Your task to perform on an android device: turn pop-ups off in chrome Image 0: 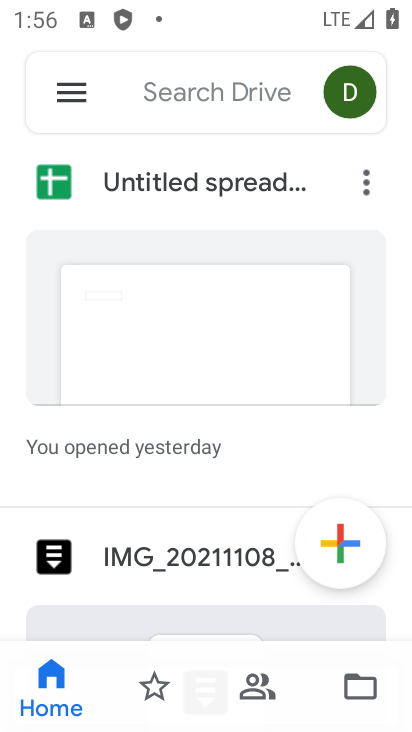
Step 0: press home button
Your task to perform on an android device: turn pop-ups off in chrome Image 1: 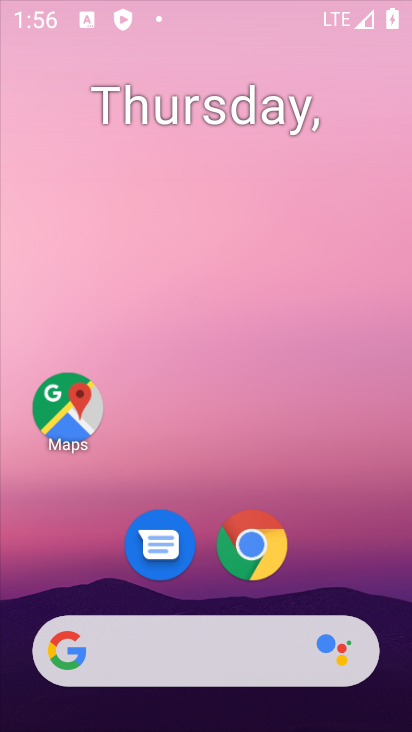
Step 1: drag from (323, 557) to (319, 0)
Your task to perform on an android device: turn pop-ups off in chrome Image 2: 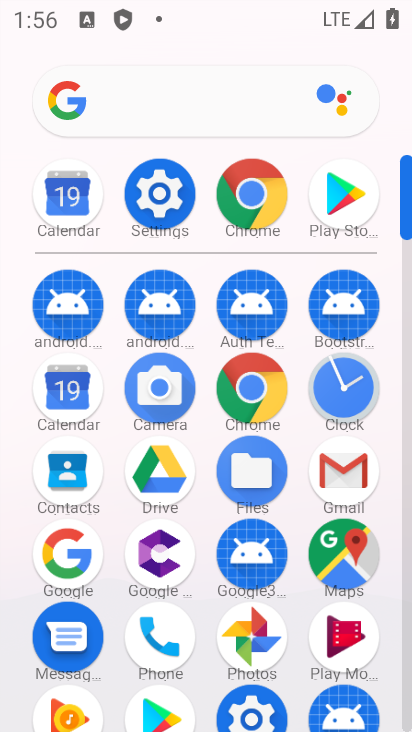
Step 2: click (262, 366)
Your task to perform on an android device: turn pop-ups off in chrome Image 3: 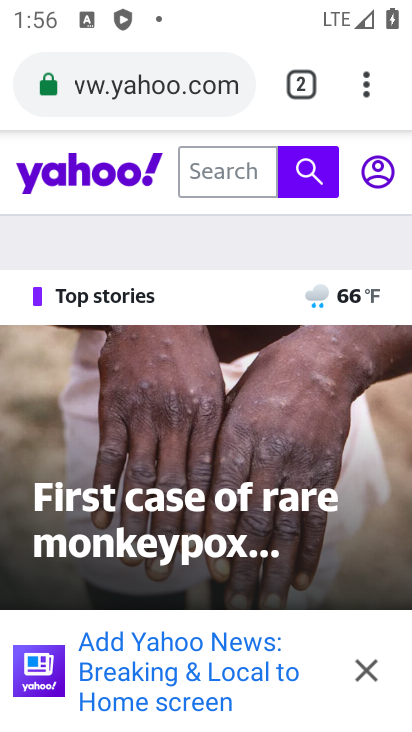
Step 3: click (373, 95)
Your task to perform on an android device: turn pop-ups off in chrome Image 4: 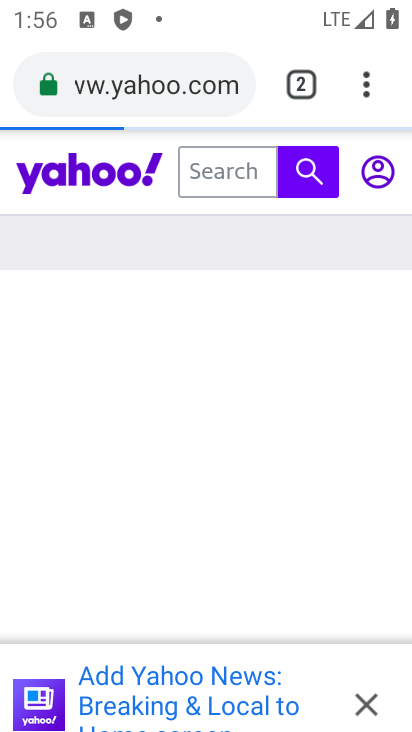
Step 4: click (373, 95)
Your task to perform on an android device: turn pop-ups off in chrome Image 5: 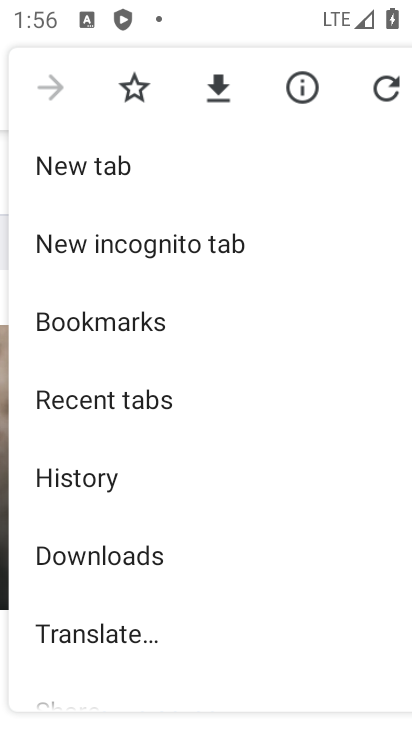
Step 5: drag from (296, 690) to (292, 142)
Your task to perform on an android device: turn pop-ups off in chrome Image 6: 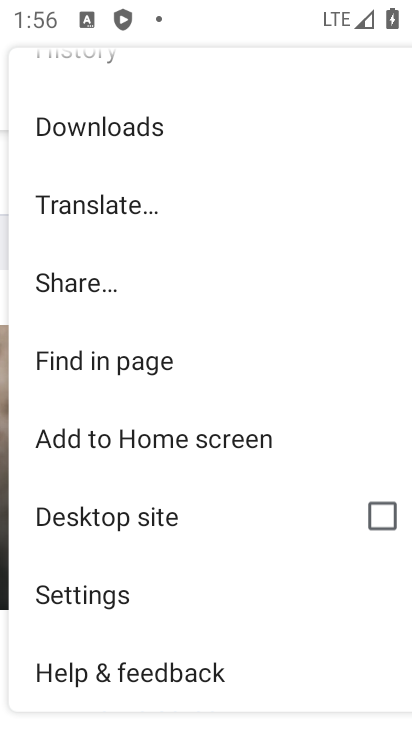
Step 6: click (151, 576)
Your task to perform on an android device: turn pop-ups off in chrome Image 7: 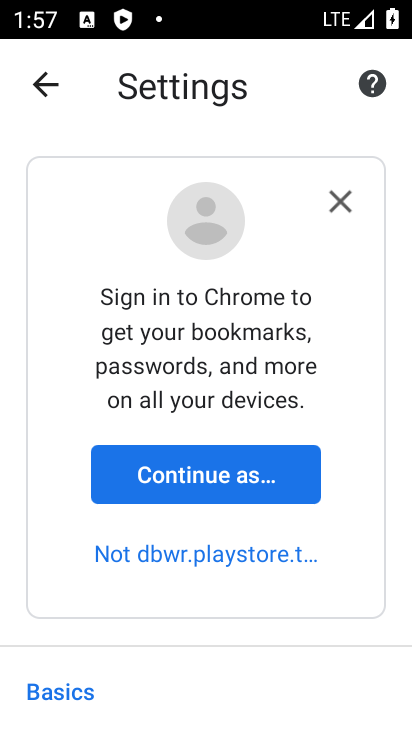
Step 7: drag from (234, 673) to (298, 131)
Your task to perform on an android device: turn pop-ups off in chrome Image 8: 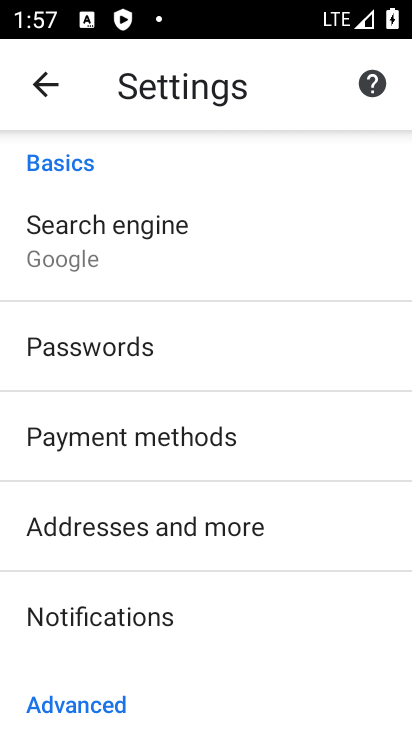
Step 8: drag from (273, 674) to (263, 110)
Your task to perform on an android device: turn pop-ups off in chrome Image 9: 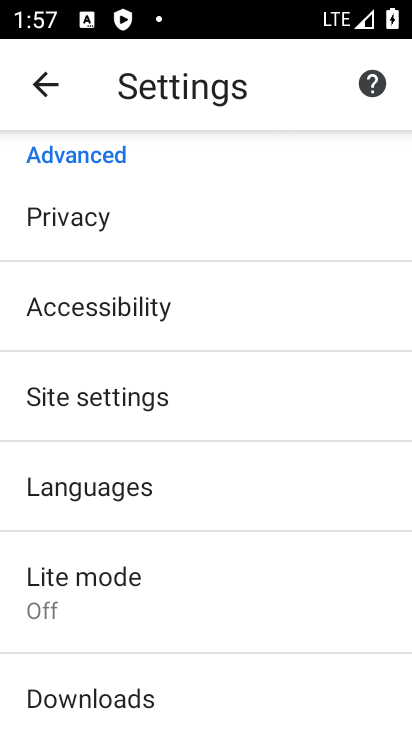
Step 9: click (170, 359)
Your task to perform on an android device: turn pop-ups off in chrome Image 10: 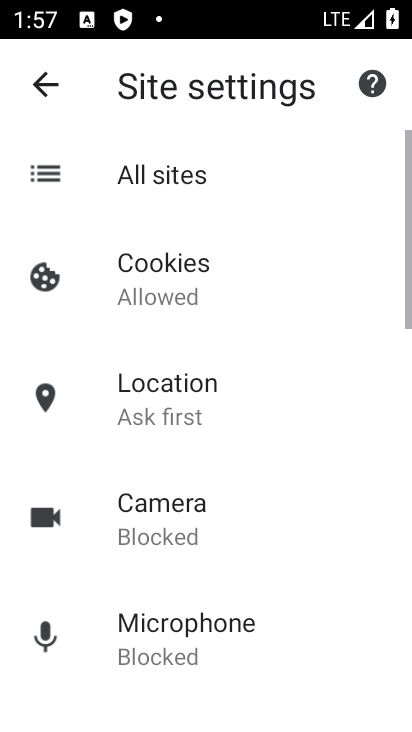
Step 10: drag from (242, 675) to (278, 168)
Your task to perform on an android device: turn pop-ups off in chrome Image 11: 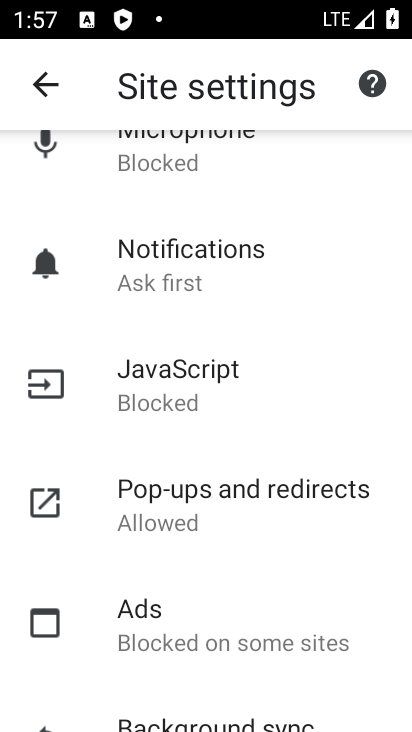
Step 11: click (232, 522)
Your task to perform on an android device: turn pop-ups off in chrome Image 12: 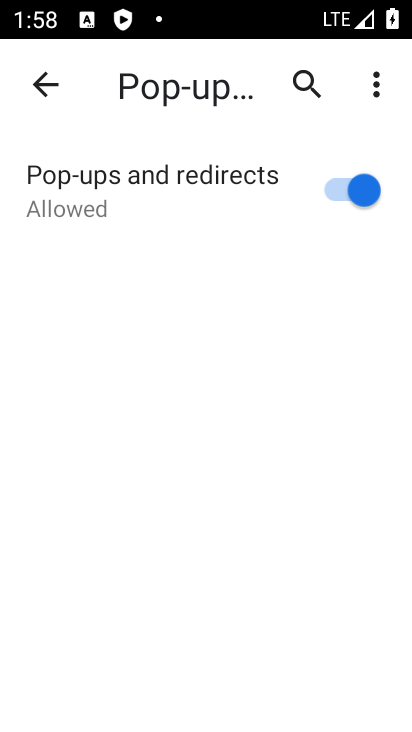
Step 12: click (334, 189)
Your task to perform on an android device: turn pop-ups off in chrome Image 13: 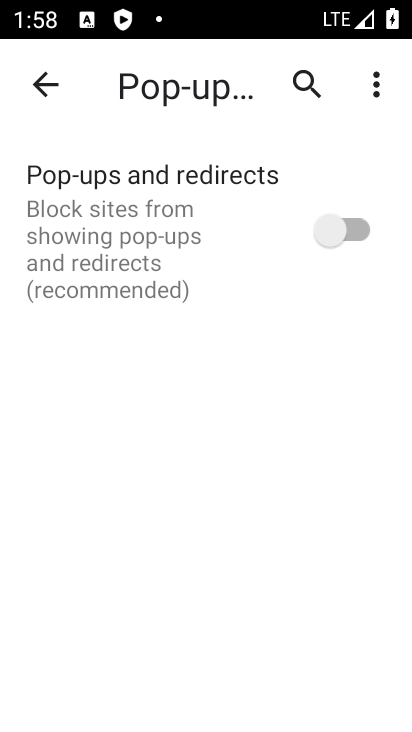
Step 13: task complete